Your task to perform on an android device: Open Chrome and go to the settings page Image 0: 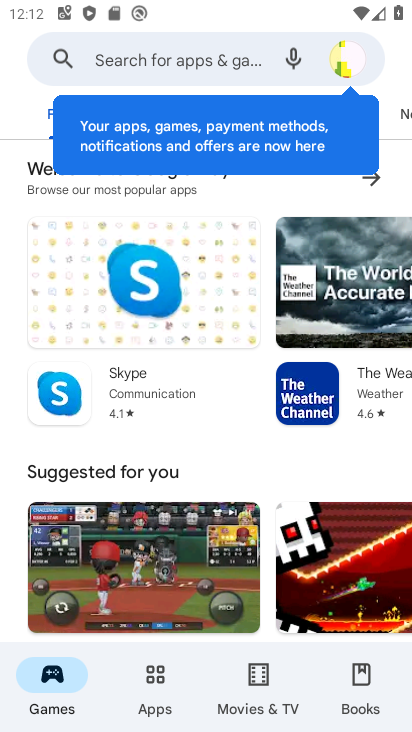
Step 0: press home button
Your task to perform on an android device: Open Chrome and go to the settings page Image 1: 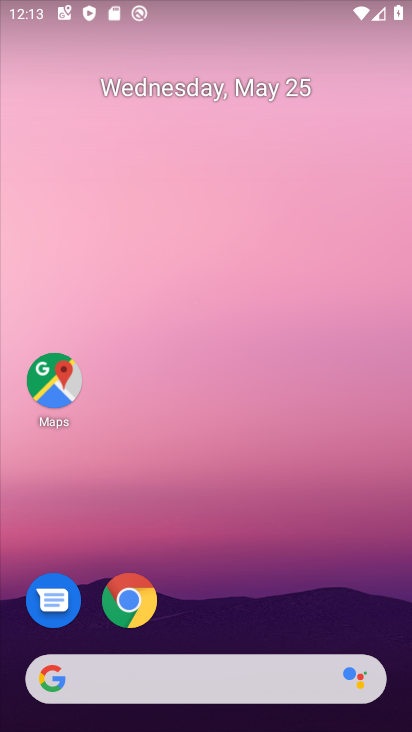
Step 1: click (135, 605)
Your task to perform on an android device: Open Chrome and go to the settings page Image 2: 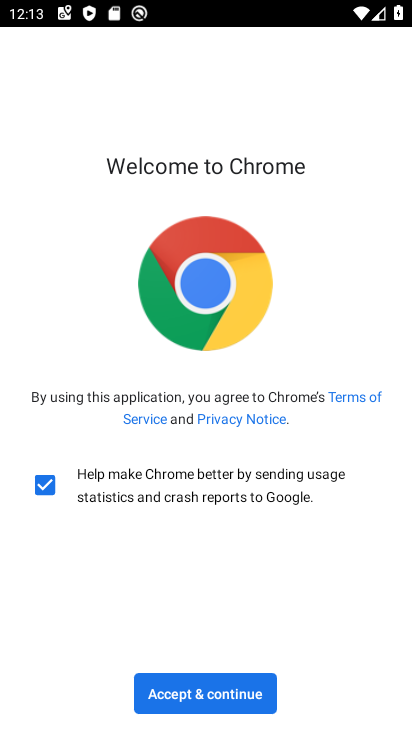
Step 2: click (176, 690)
Your task to perform on an android device: Open Chrome and go to the settings page Image 3: 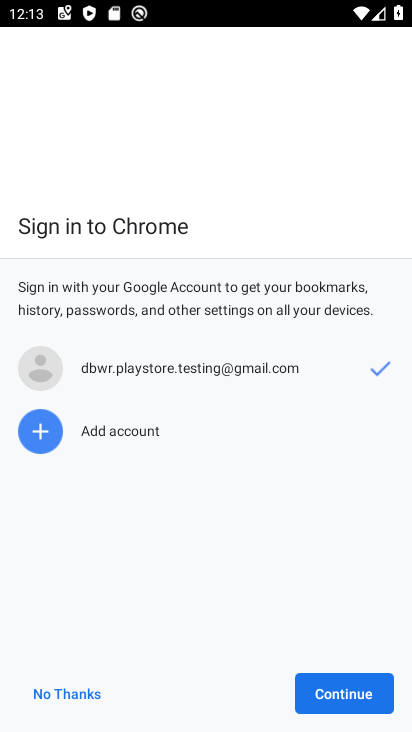
Step 3: click (342, 684)
Your task to perform on an android device: Open Chrome and go to the settings page Image 4: 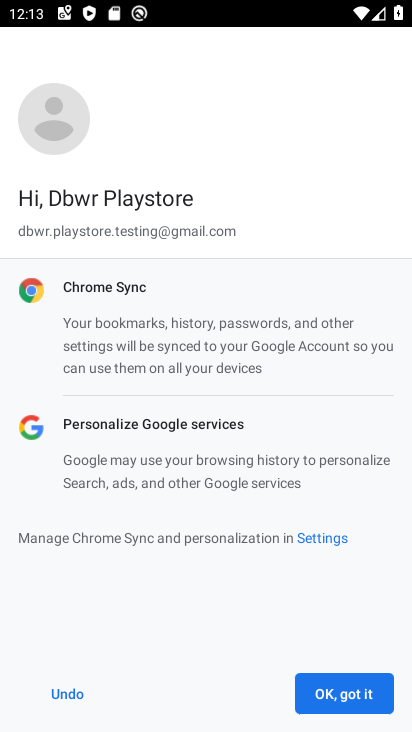
Step 4: click (316, 693)
Your task to perform on an android device: Open Chrome and go to the settings page Image 5: 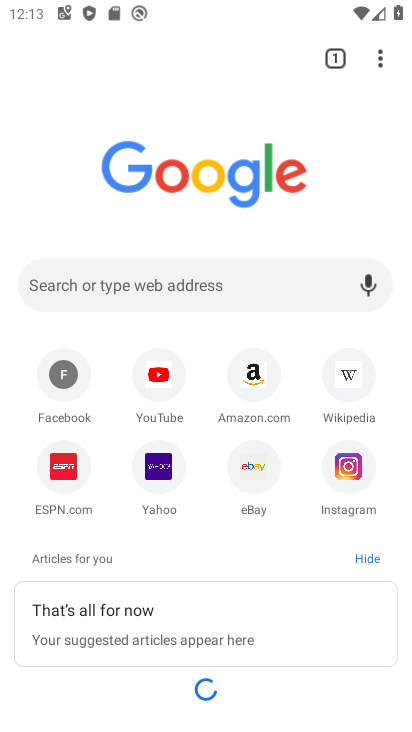
Step 5: click (373, 55)
Your task to perform on an android device: Open Chrome and go to the settings page Image 6: 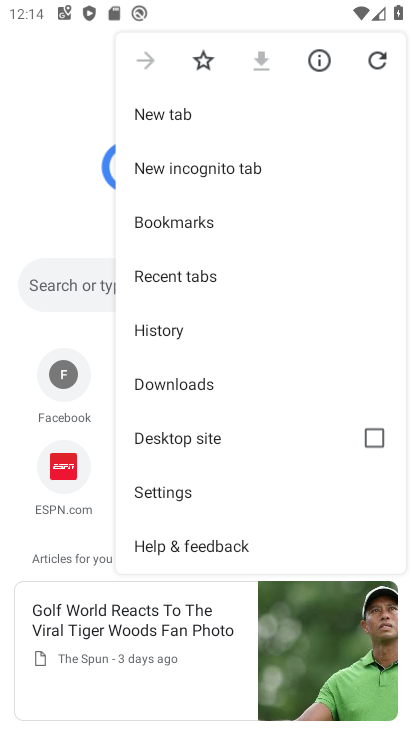
Step 6: click (224, 485)
Your task to perform on an android device: Open Chrome and go to the settings page Image 7: 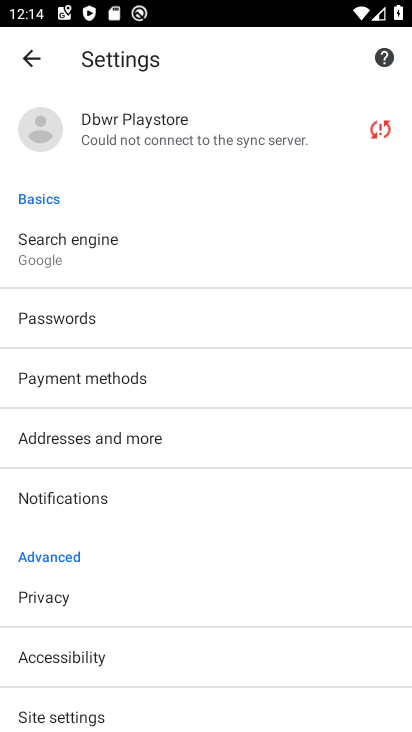
Step 7: task complete